Your task to perform on an android device: turn on sleep mode Image 0: 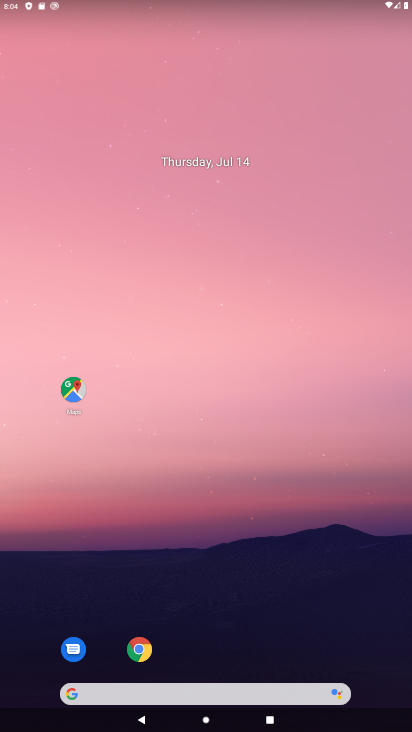
Step 0: drag from (223, 648) to (298, 80)
Your task to perform on an android device: turn on sleep mode Image 1: 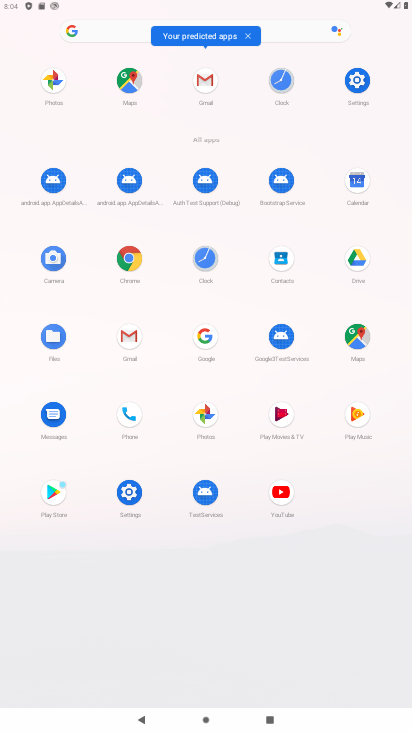
Step 1: click (366, 86)
Your task to perform on an android device: turn on sleep mode Image 2: 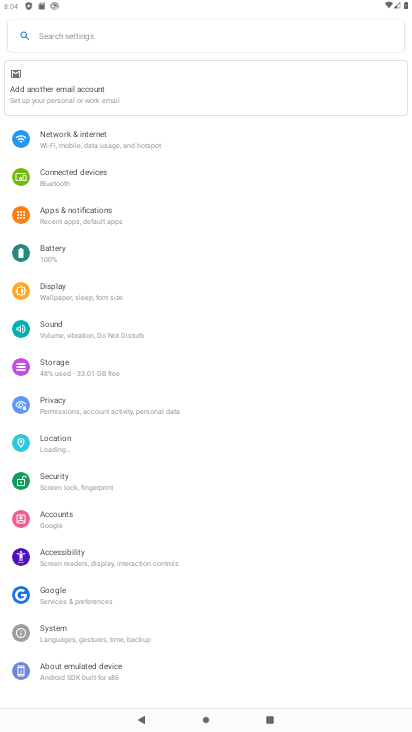
Step 2: click (67, 287)
Your task to perform on an android device: turn on sleep mode Image 3: 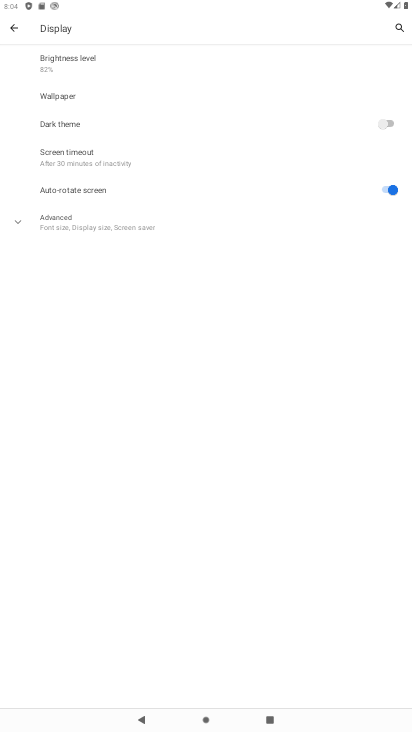
Step 3: click (89, 163)
Your task to perform on an android device: turn on sleep mode Image 4: 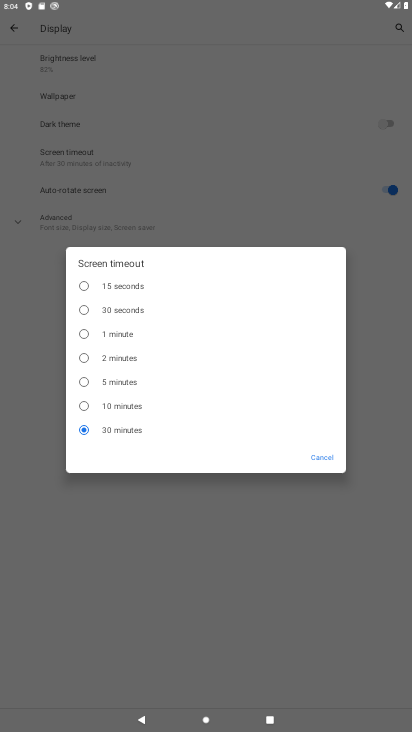
Step 4: click (120, 333)
Your task to perform on an android device: turn on sleep mode Image 5: 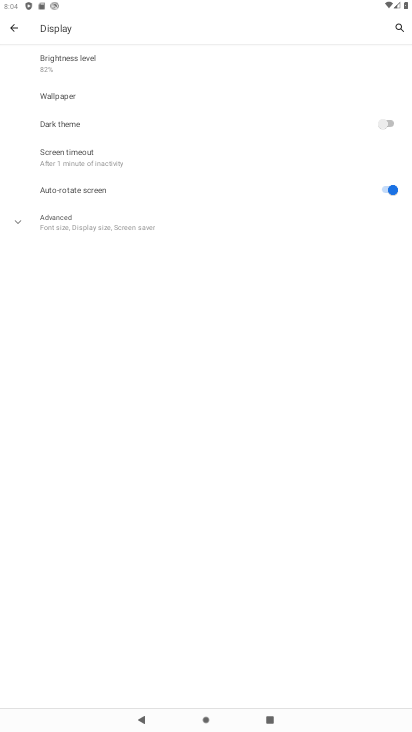
Step 5: task complete